Your task to perform on an android device: turn off notifications in google photos Image 0: 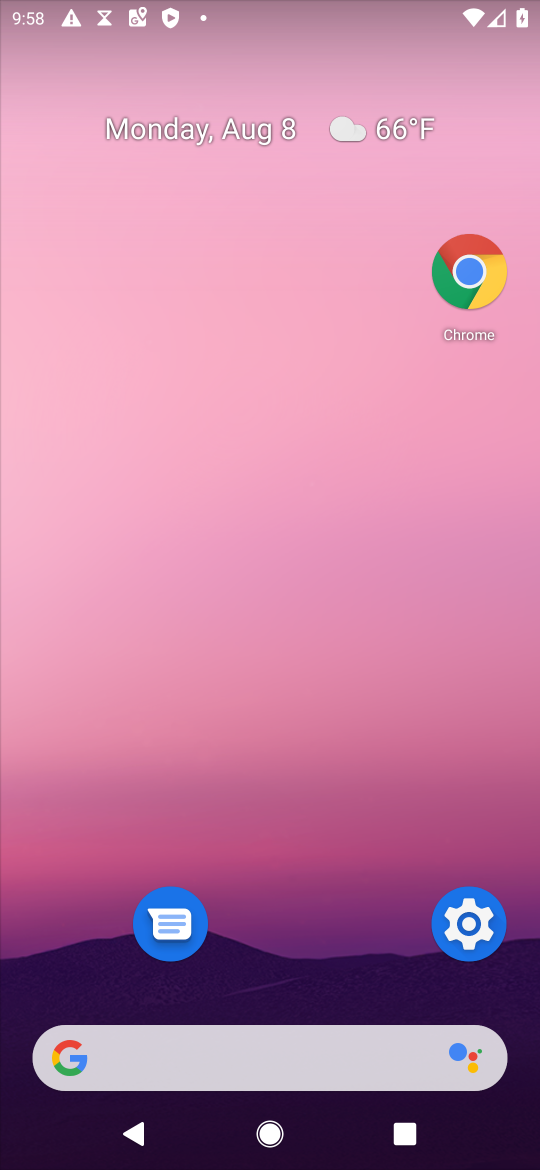
Step 0: drag from (337, 704) to (176, 20)
Your task to perform on an android device: turn off notifications in google photos Image 1: 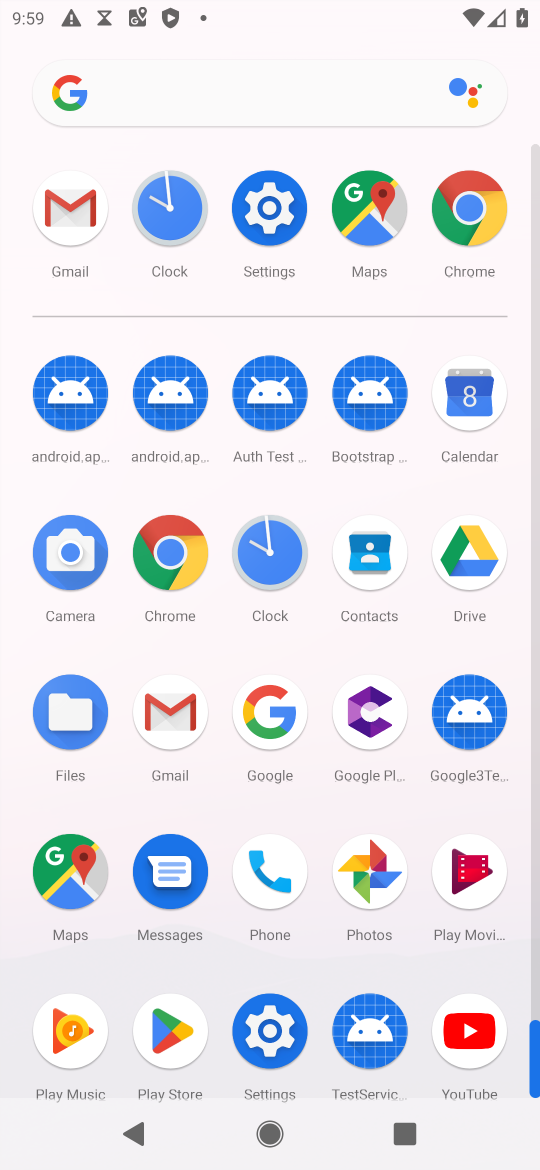
Step 1: click (351, 890)
Your task to perform on an android device: turn off notifications in google photos Image 2: 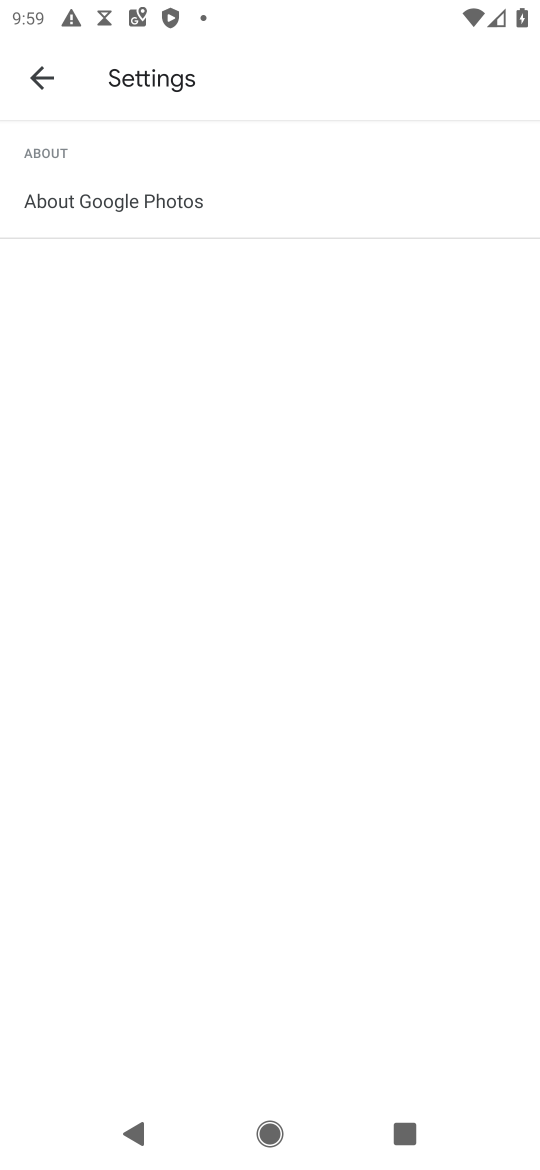
Step 2: press home button
Your task to perform on an android device: turn off notifications in google photos Image 3: 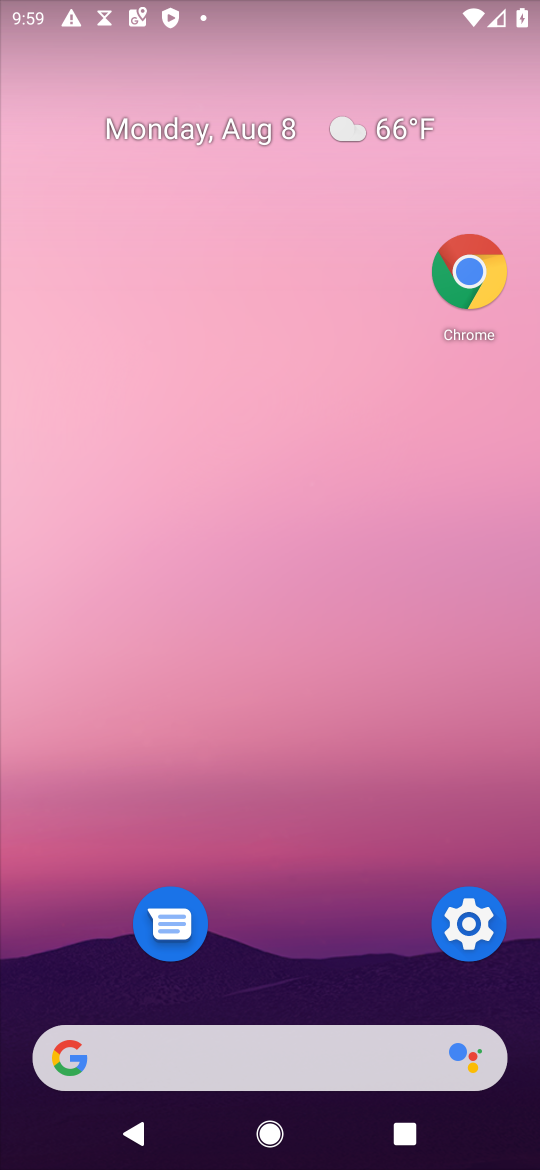
Step 3: drag from (289, 997) to (233, 575)
Your task to perform on an android device: turn off notifications in google photos Image 4: 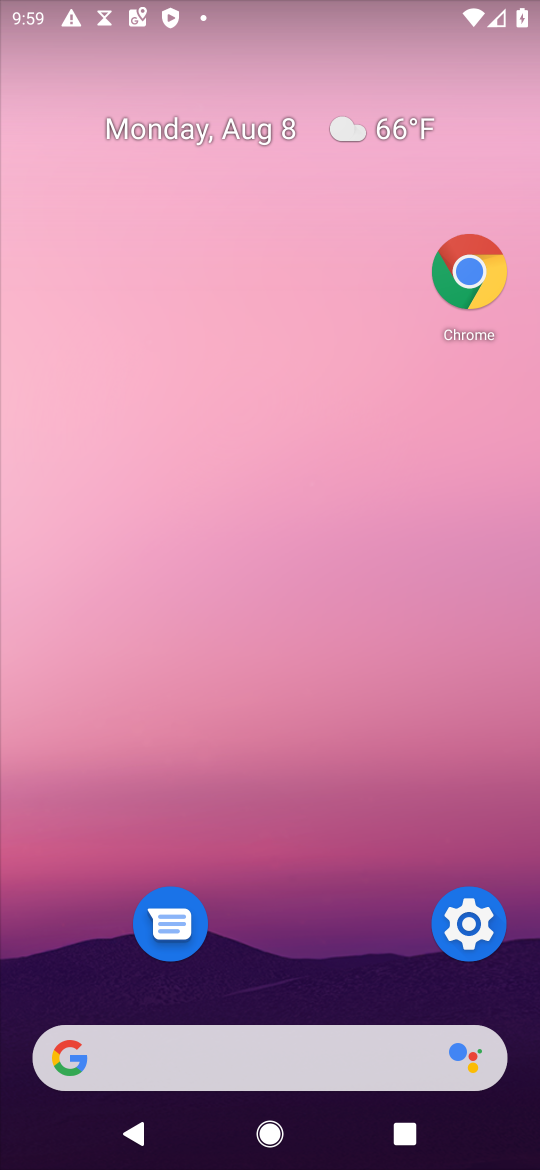
Step 4: drag from (348, 985) to (298, 539)
Your task to perform on an android device: turn off notifications in google photos Image 5: 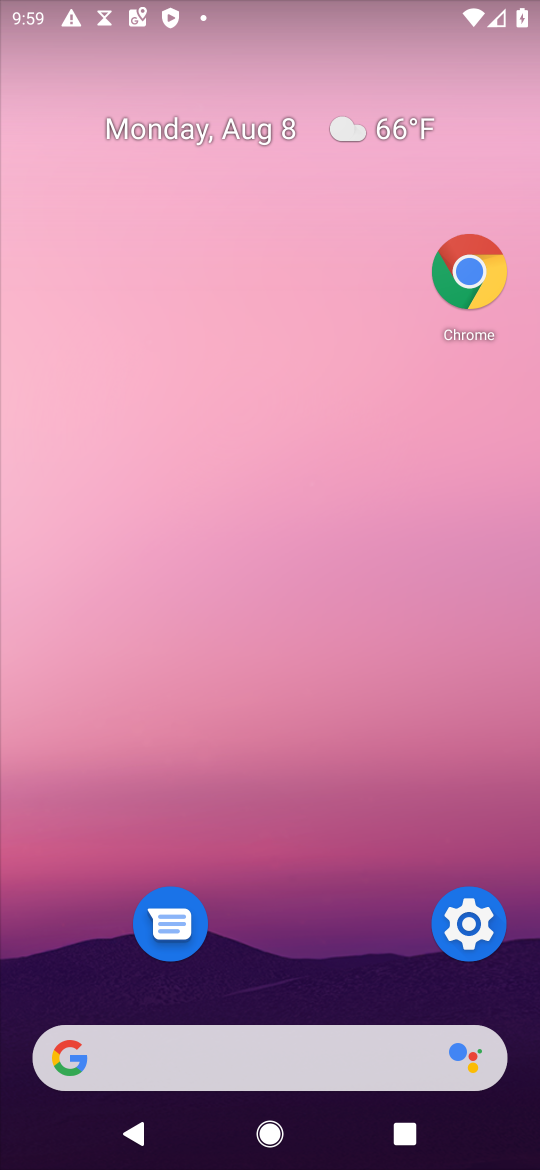
Step 5: drag from (337, 1116) to (303, 113)
Your task to perform on an android device: turn off notifications in google photos Image 6: 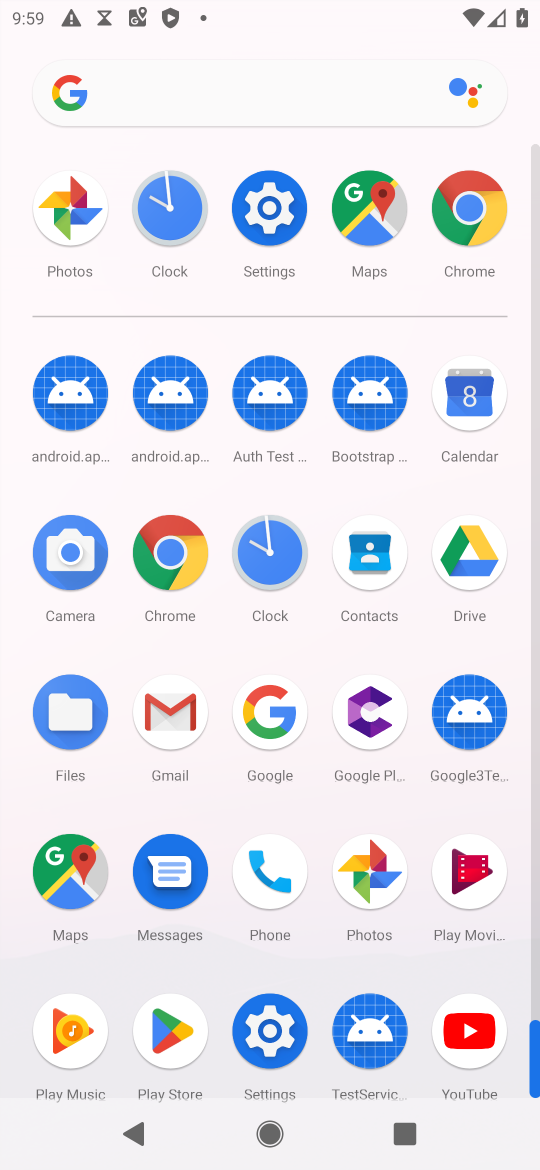
Step 6: click (373, 900)
Your task to perform on an android device: turn off notifications in google photos Image 7: 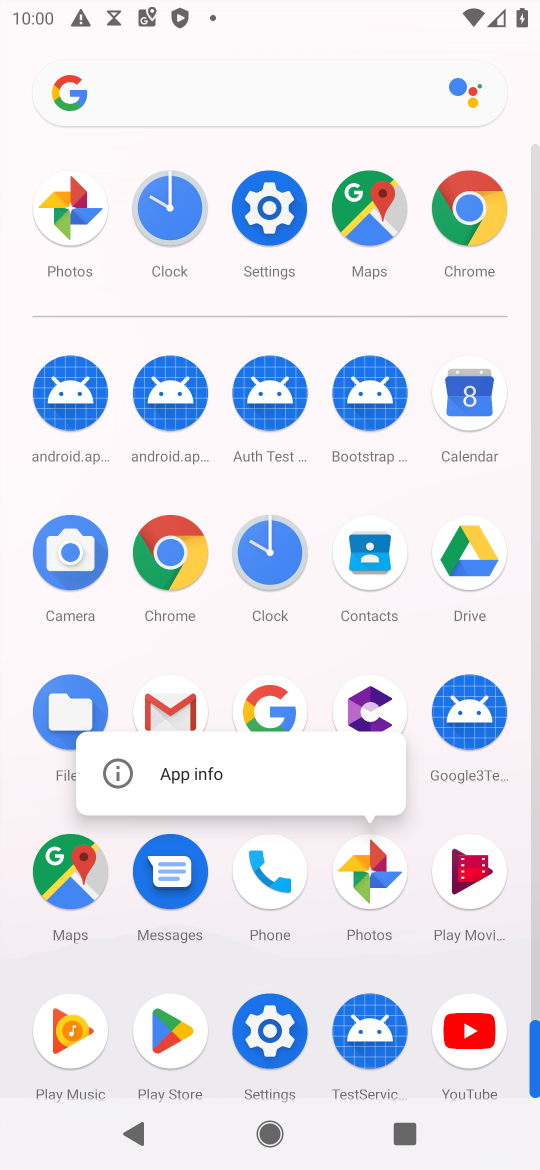
Step 7: click (257, 767)
Your task to perform on an android device: turn off notifications in google photos Image 8: 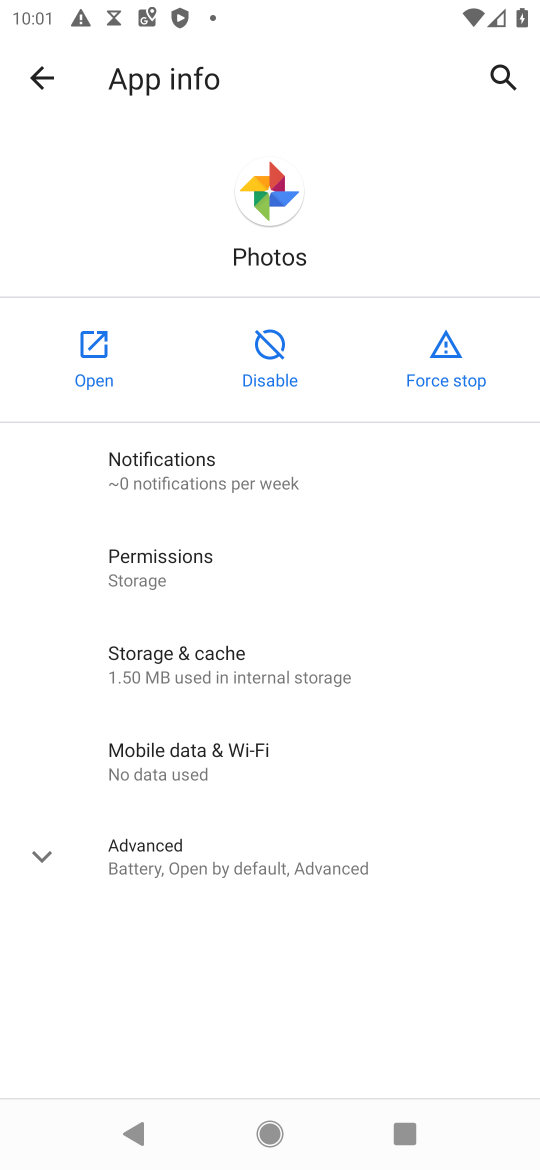
Step 8: click (140, 491)
Your task to perform on an android device: turn off notifications in google photos Image 9: 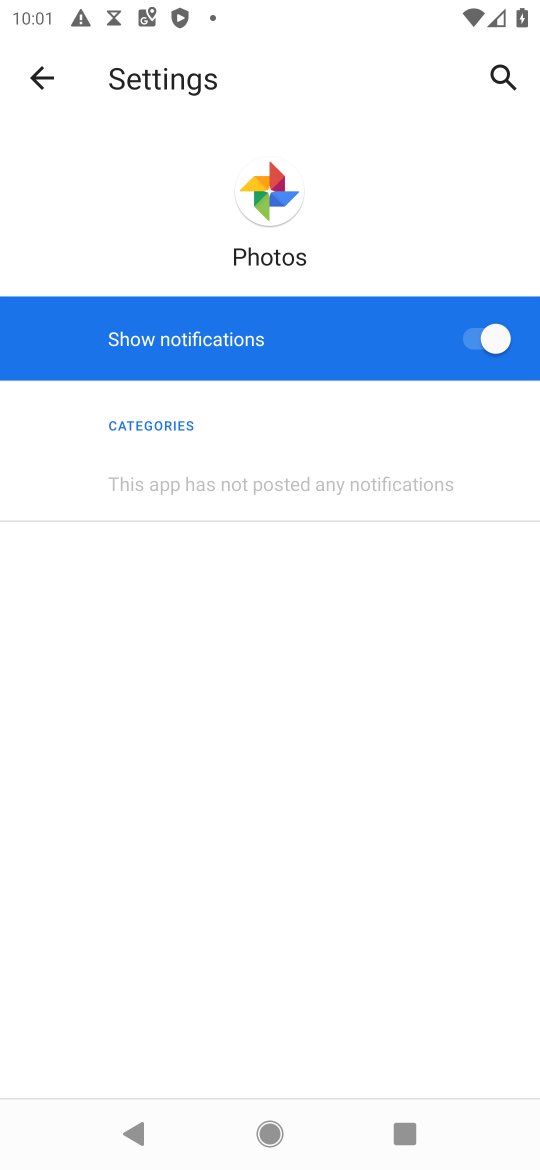
Step 9: click (255, 345)
Your task to perform on an android device: turn off notifications in google photos Image 10: 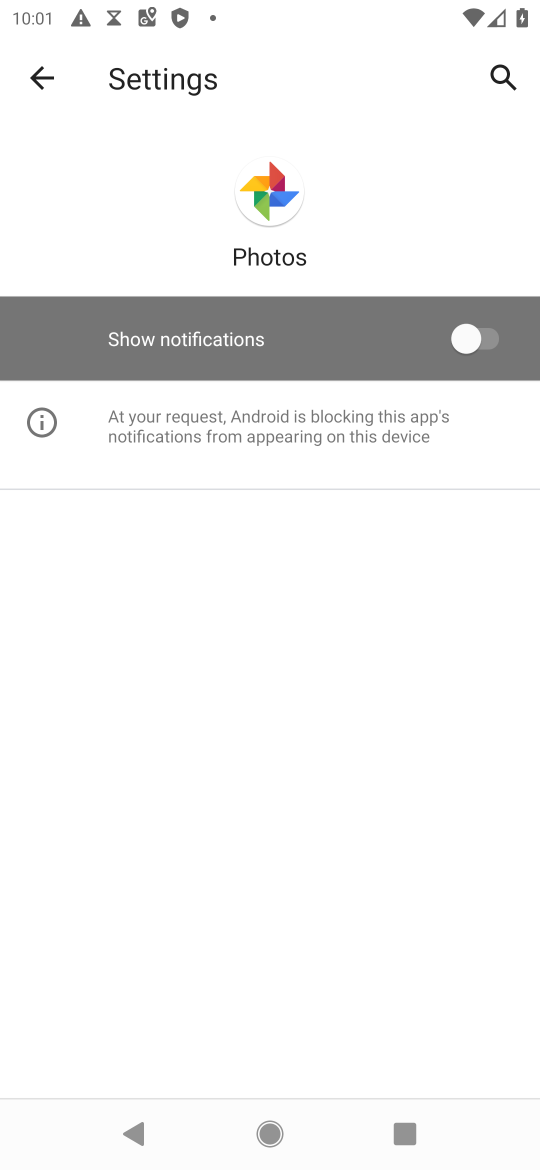
Step 10: task complete